Your task to perform on an android device: Go to battery settings Image 0: 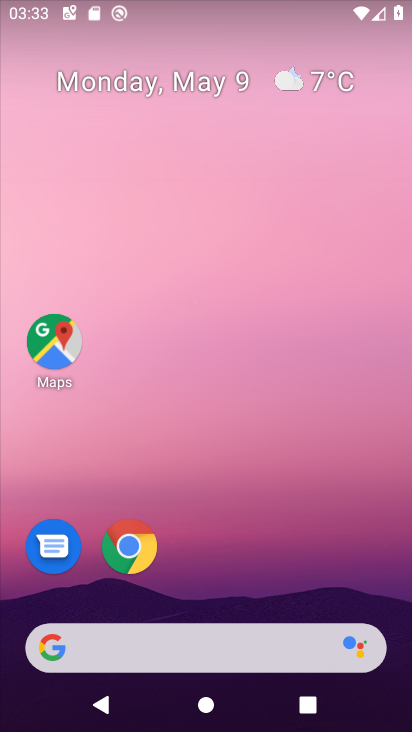
Step 0: drag from (277, 605) to (266, 47)
Your task to perform on an android device: Go to battery settings Image 1: 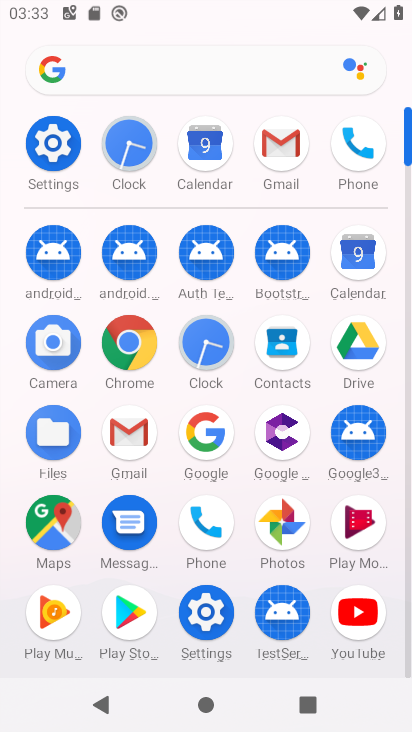
Step 1: click (58, 138)
Your task to perform on an android device: Go to battery settings Image 2: 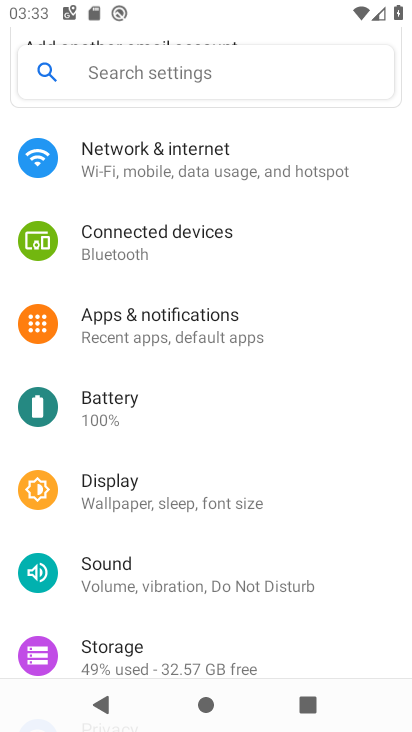
Step 2: click (149, 387)
Your task to perform on an android device: Go to battery settings Image 3: 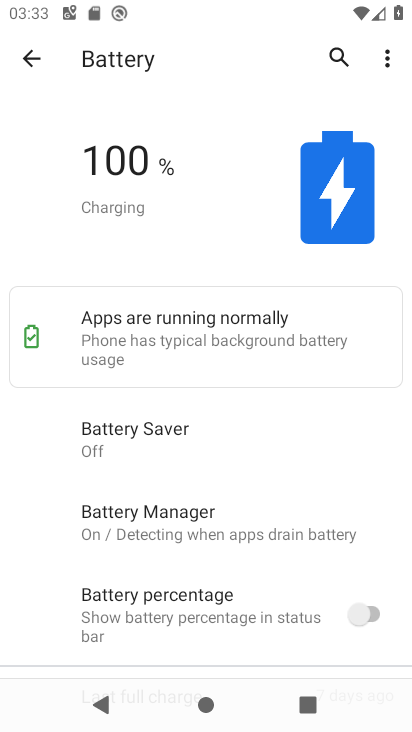
Step 3: task complete